Your task to perform on an android device: Go to accessibility settings Image 0: 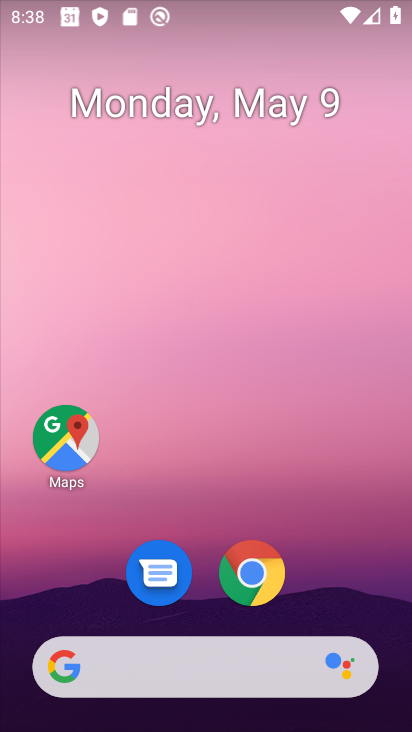
Step 0: drag from (350, 610) to (324, 0)
Your task to perform on an android device: Go to accessibility settings Image 1: 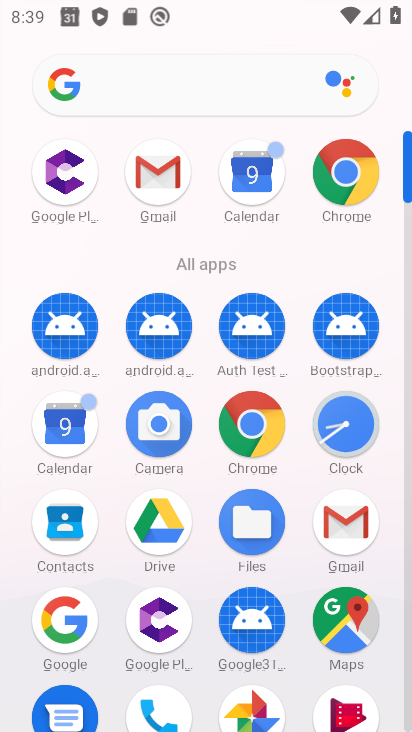
Step 1: drag from (301, 390) to (280, 214)
Your task to perform on an android device: Go to accessibility settings Image 2: 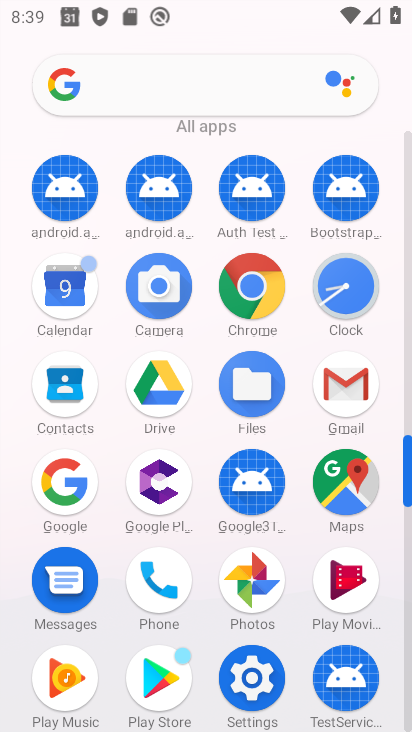
Step 2: click (244, 663)
Your task to perform on an android device: Go to accessibility settings Image 3: 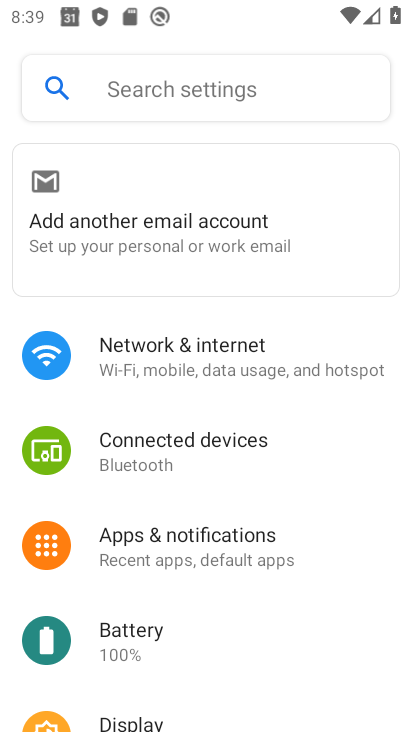
Step 3: drag from (243, 662) to (220, 572)
Your task to perform on an android device: Go to accessibility settings Image 4: 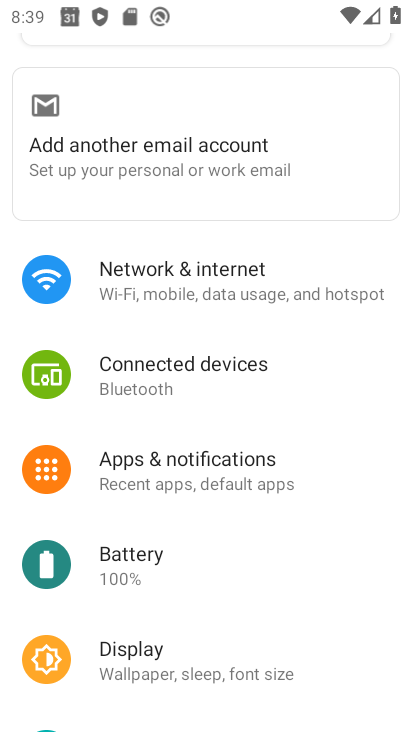
Step 4: drag from (221, 688) to (220, 562)
Your task to perform on an android device: Go to accessibility settings Image 5: 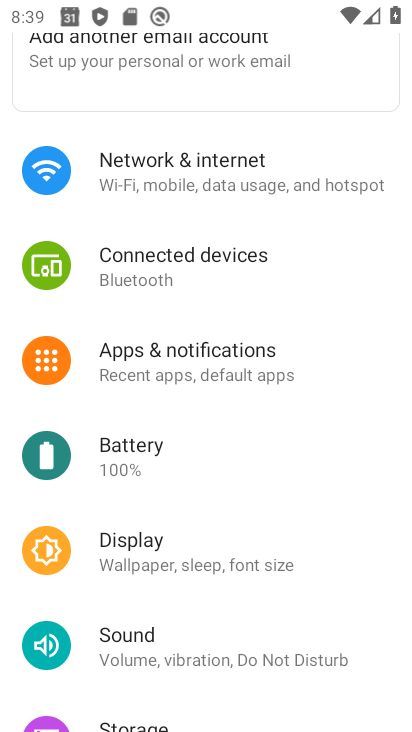
Step 5: drag from (179, 660) to (185, 573)
Your task to perform on an android device: Go to accessibility settings Image 6: 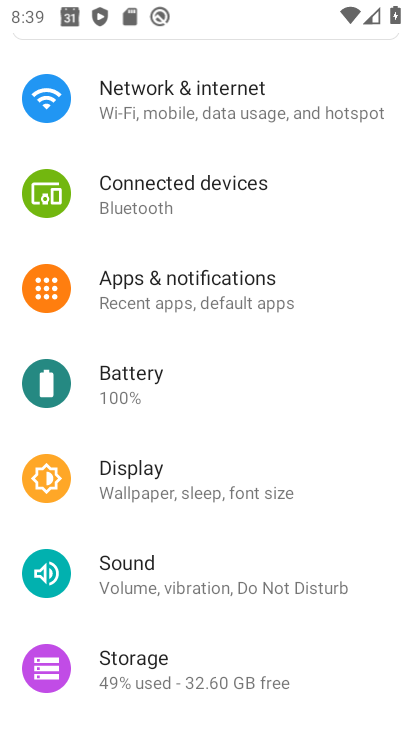
Step 6: drag from (148, 649) to (147, 563)
Your task to perform on an android device: Go to accessibility settings Image 7: 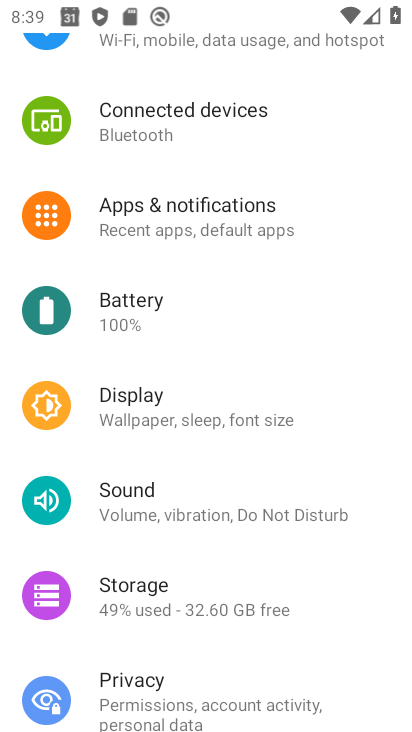
Step 7: drag from (140, 654) to (146, 568)
Your task to perform on an android device: Go to accessibility settings Image 8: 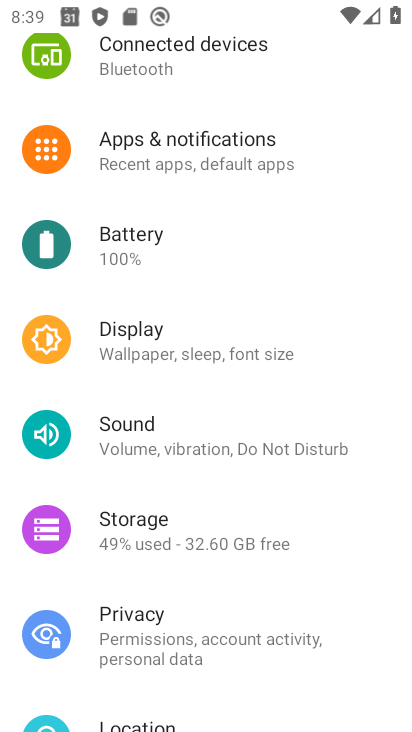
Step 8: drag from (136, 655) to (158, 570)
Your task to perform on an android device: Go to accessibility settings Image 9: 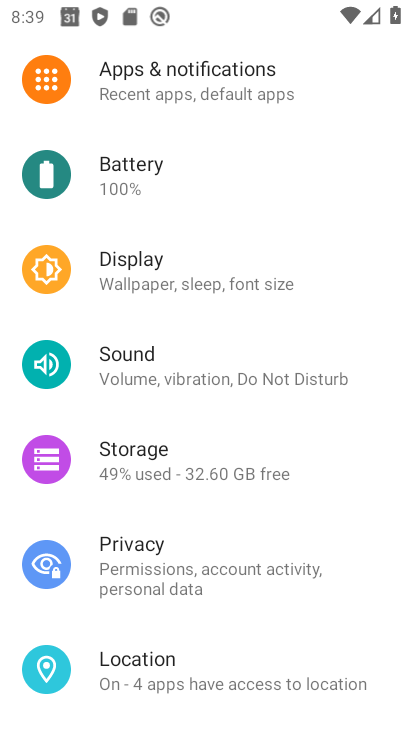
Step 9: drag from (158, 640) to (141, 550)
Your task to perform on an android device: Go to accessibility settings Image 10: 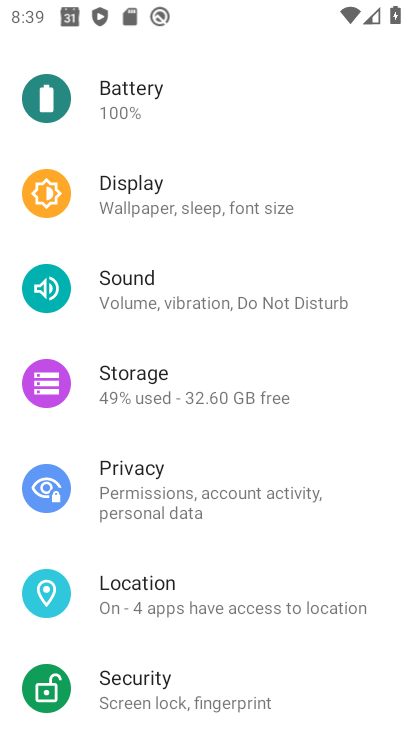
Step 10: drag from (131, 616) to (182, 463)
Your task to perform on an android device: Go to accessibility settings Image 11: 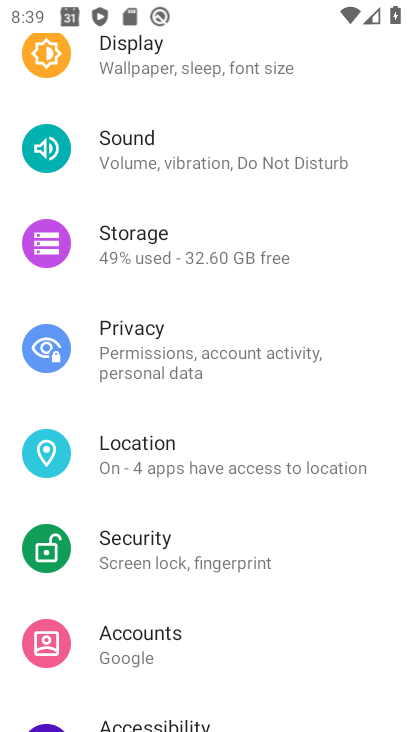
Step 11: drag from (197, 643) to (194, 535)
Your task to perform on an android device: Go to accessibility settings Image 12: 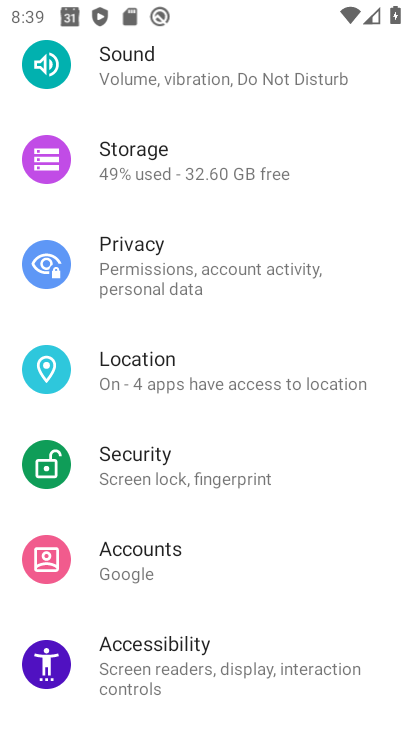
Step 12: click (184, 640)
Your task to perform on an android device: Go to accessibility settings Image 13: 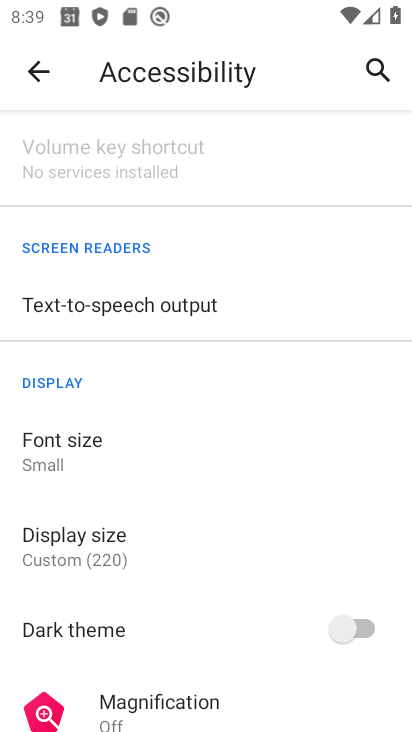
Step 13: task complete